Your task to perform on an android device: toggle sleep mode Image 0: 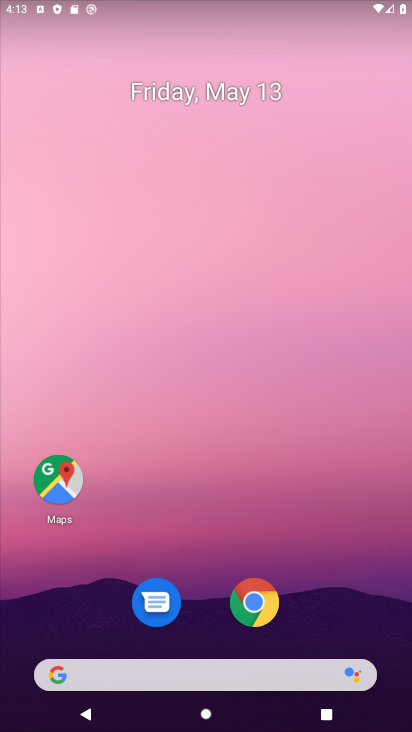
Step 0: drag from (167, 580) to (183, 206)
Your task to perform on an android device: toggle sleep mode Image 1: 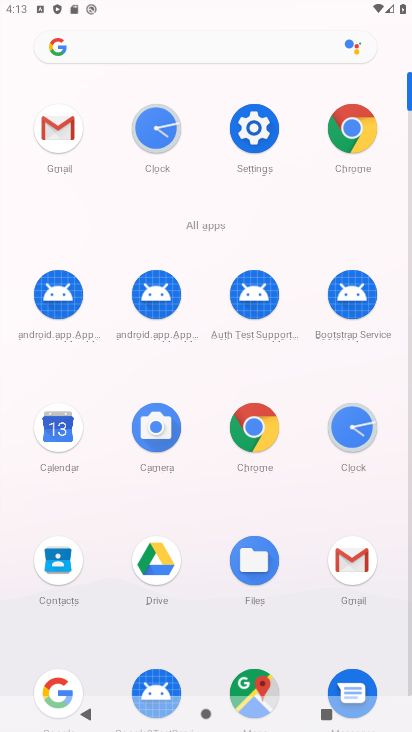
Step 1: click (250, 129)
Your task to perform on an android device: toggle sleep mode Image 2: 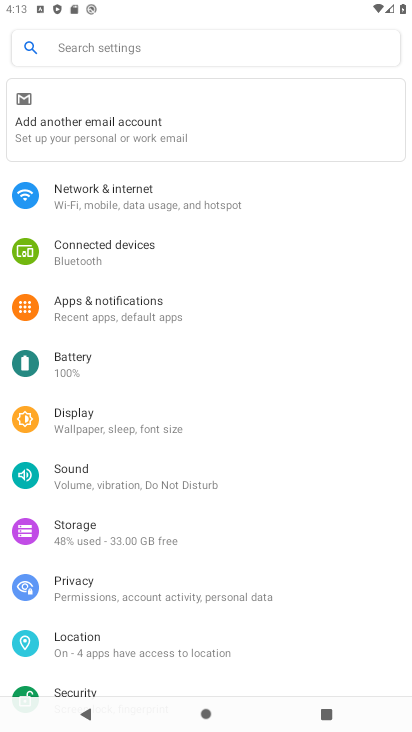
Step 2: click (121, 434)
Your task to perform on an android device: toggle sleep mode Image 3: 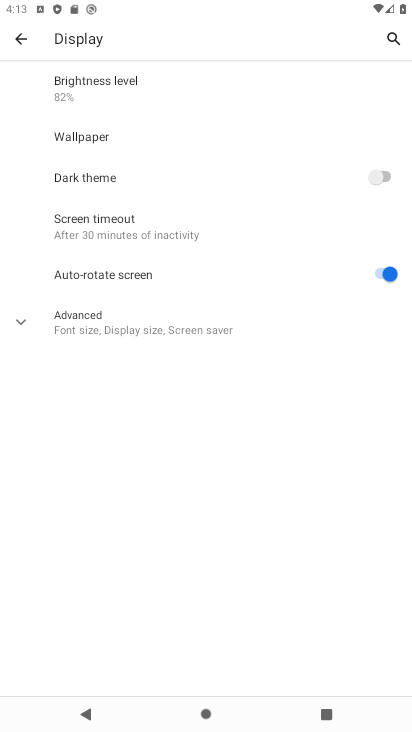
Step 3: click (115, 225)
Your task to perform on an android device: toggle sleep mode Image 4: 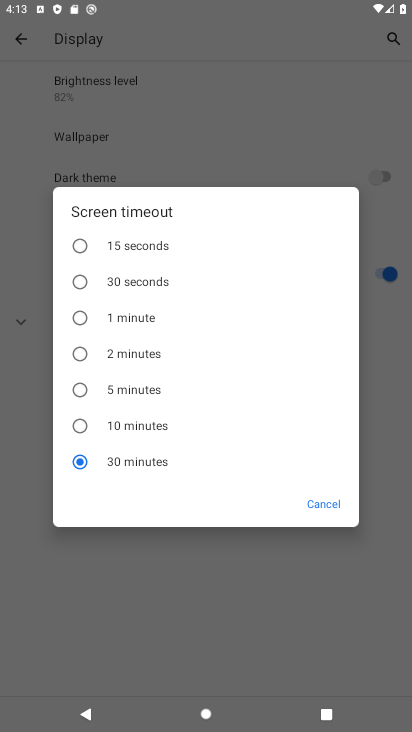
Step 4: click (119, 250)
Your task to perform on an android device: toggle sleep mode Image 5: 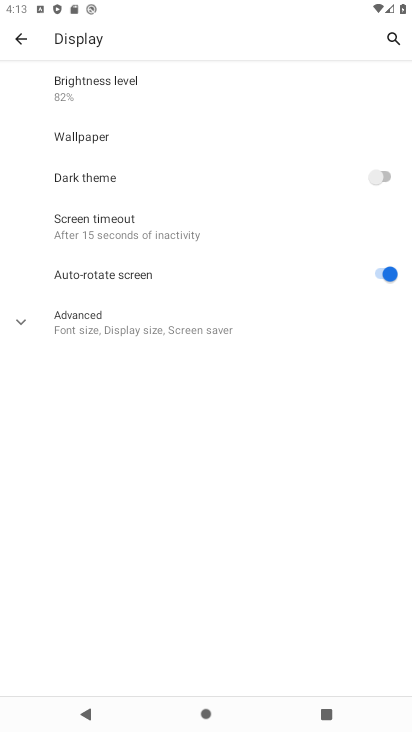
Step 5: task complete